Your task to perform on an android device: Open internet settings Image 0: 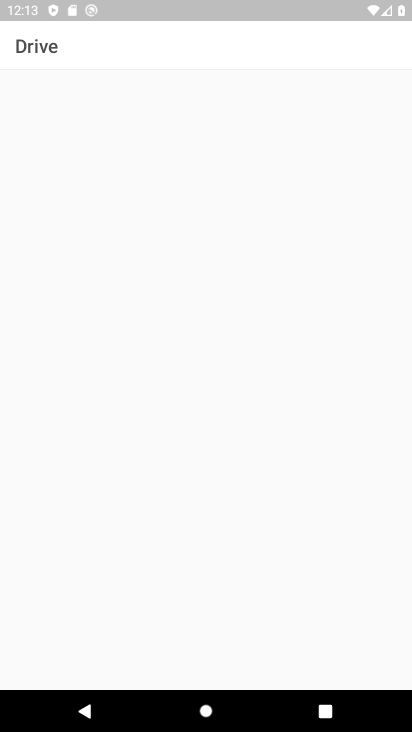
Step 0: press home button
Your task to perform on an android device: Open internet settings Image 1: 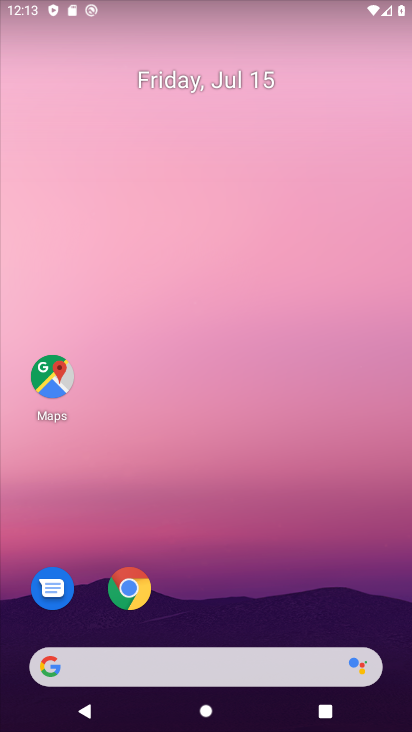
Step 1: drag from (235, 597) to (388, 134)
Your task to perform on an android device: Open internet settings Image 2: 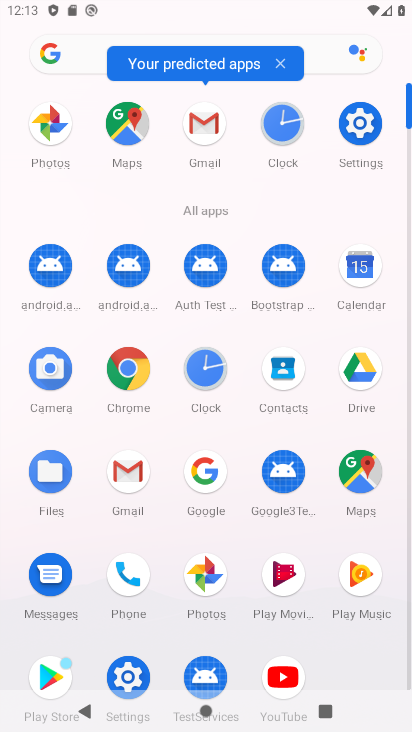
Step 2: click (364, 132)
Your task to perform on an android device: Open internet settings Image 3: 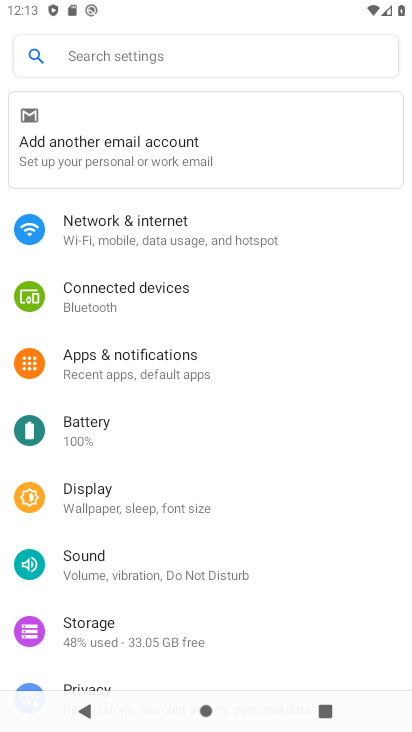
Step 3: click (148, 221)
Your task to perform on an android device: Open internet settings Image 4: 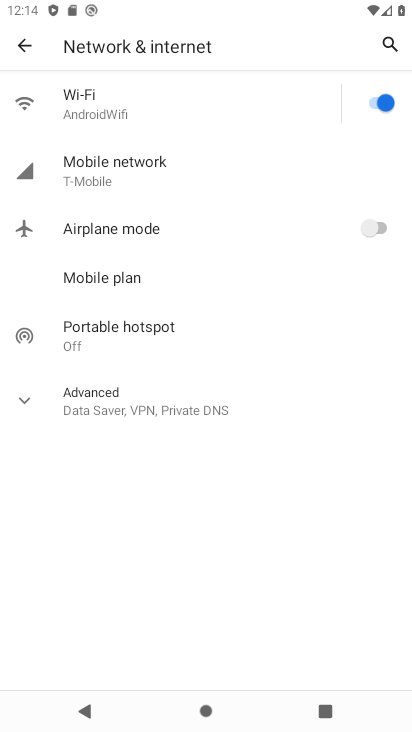
Step 4: click (138, 184)
Your task to perform on an android device: Open internet settings Image 5: 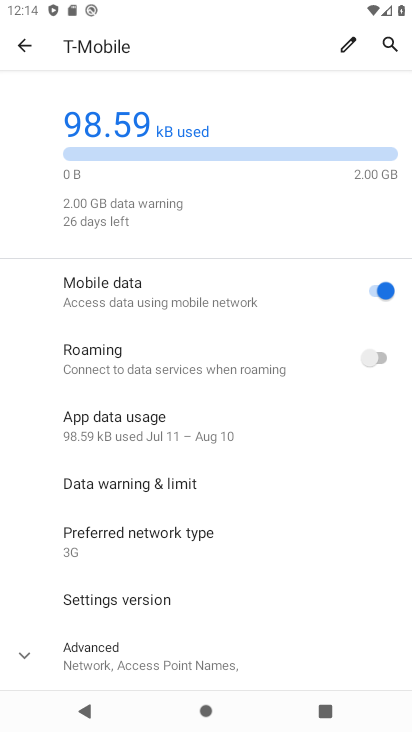
Step 5: task complete